Your task to perform on an android device: set default search engine in the chrome app Image 0: 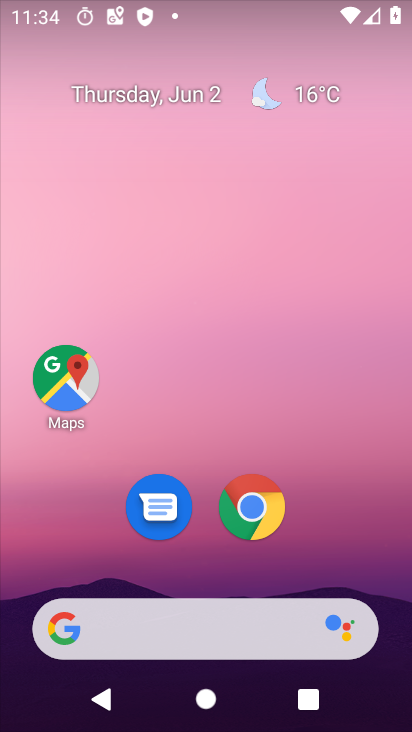
Step 0: drag from (389, 620) to (280, 150)
Your task to perform on an android device: set default search engine in the chrome app Image 1: 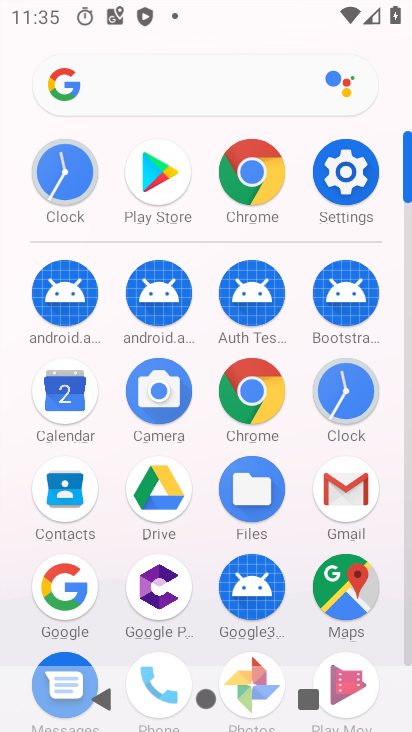
Step 1: click (248, 395)
Your task to perform on an android device: set default search engine in the chrome app Image 2: 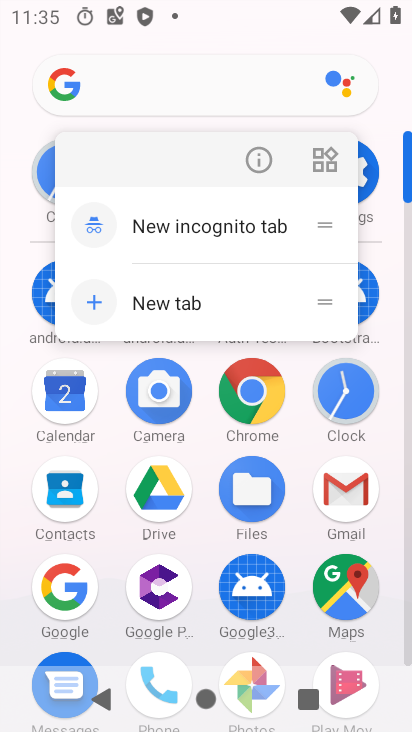
Step 2: click (248, 395)
Your task to perform on an android device: set default search engine in the chrome app Image 3: 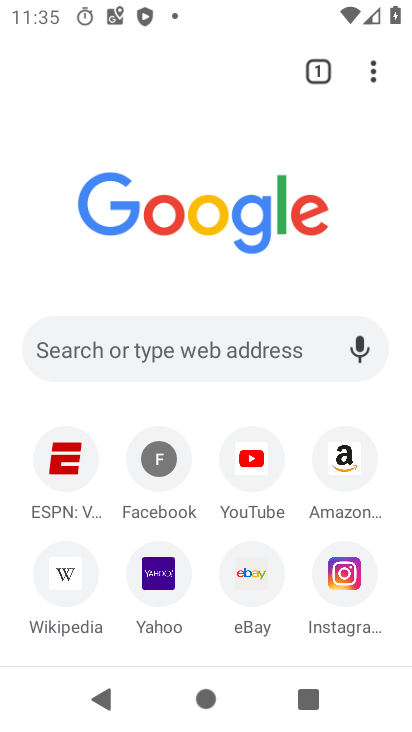
Step 3: click (372, 62)
Your task to perform on an android device: set default search engine in the chrome app Image 4: 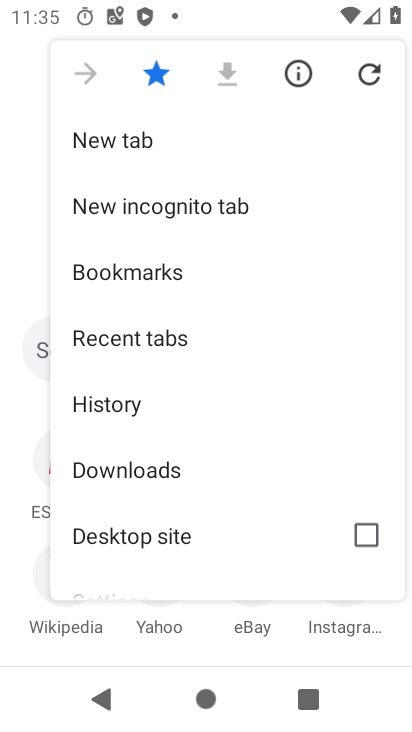
Step 4: click (154, 526)
Your task to perform on an android device: set default search engine in the chrome app Image 5: 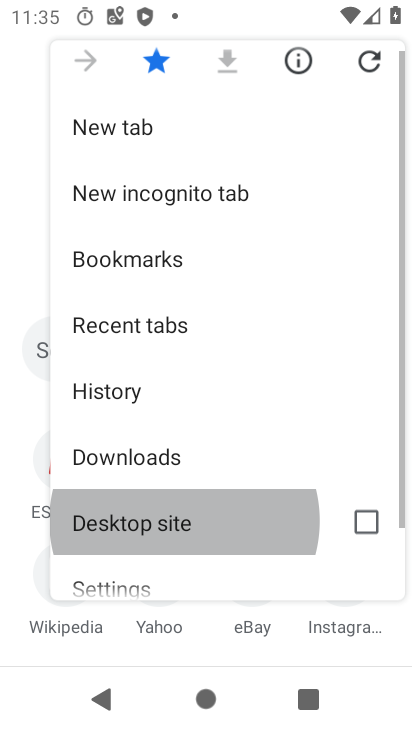
Step 5: drag from (187, 345) to (190, 163)
Your task to perform on an android device: set default search engine in the chrome app Image 6: 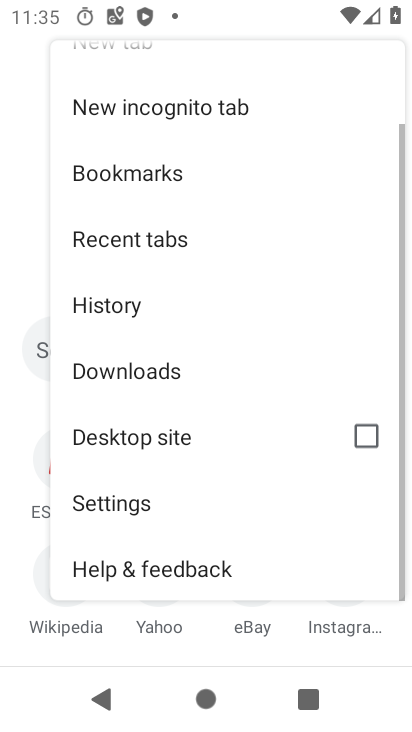
Step 6: click (130, 495)
Your task to perform on an android device: set default search engine in the chrome app Image 7: 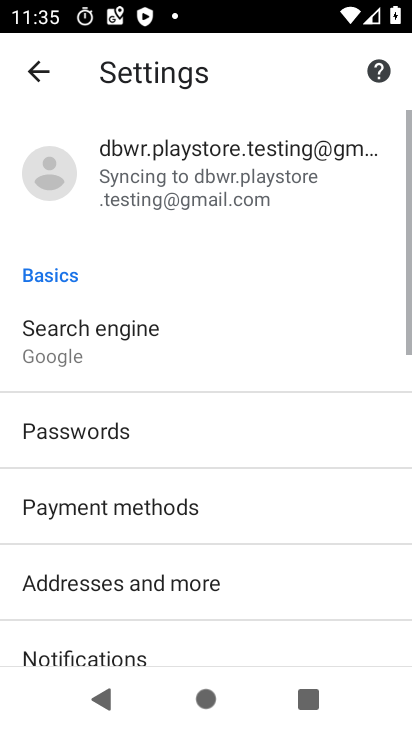
Step 7: click (176, 352)
Your task to perform on an android device: set default search engine in the chrome app Image 8: 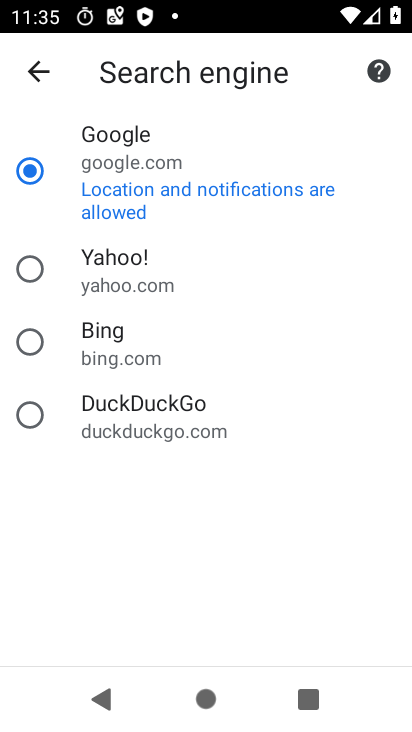
Step 8: task complete